Your task to perform on an android device: Go to location settings Image 0: 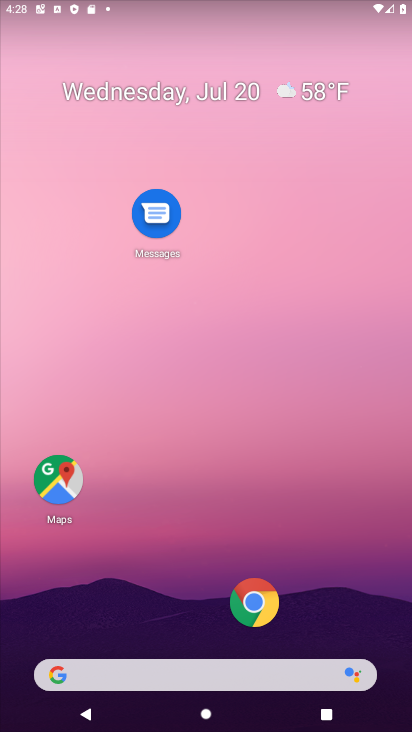
Step 0: drag from (176, 625) to (251, 85)
Your task to perform on an android device: Go to location settings Image 1: 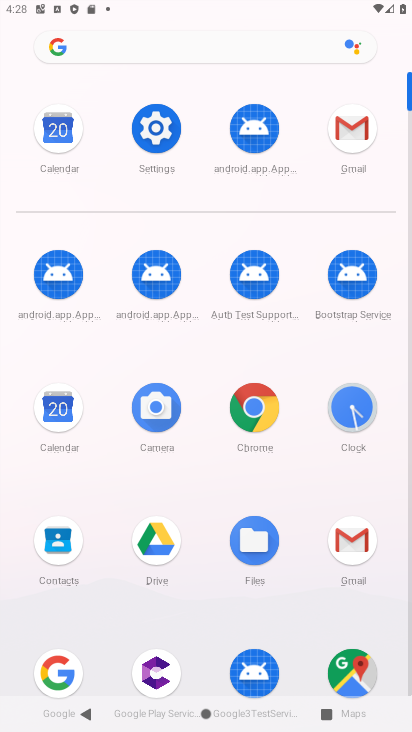
Step 1: click (153, 128)
Your task to perform on an android device: Go to location settings Image 2: 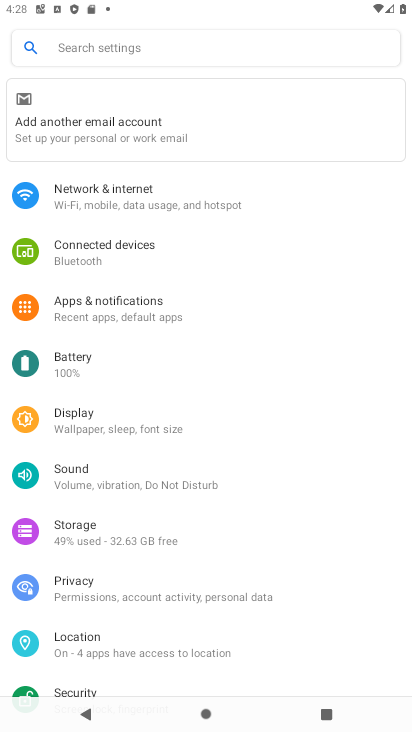
Step 2: click (70, 645)
Your task to perform on an android device: Go to location settings Image 3: 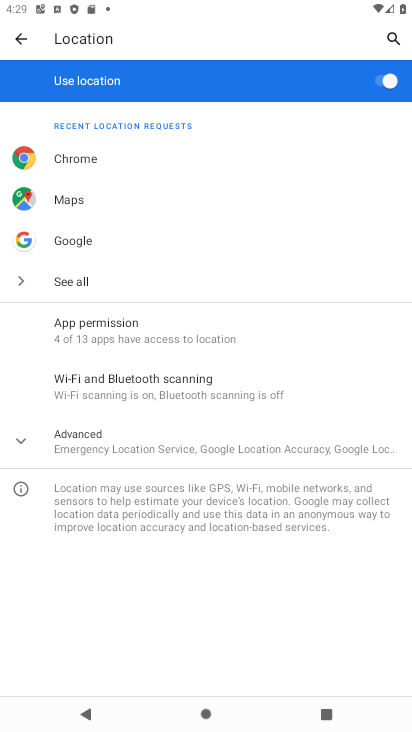
Step 3: click (104, 445)
Your task to perform on an android device: Go to location settings Image 4: 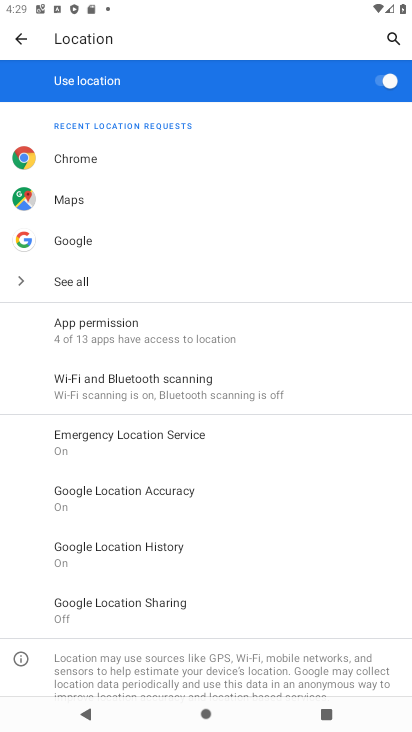
Step 4: task complete